Your task to perform on an android device: empty trash in google photos Image 0: 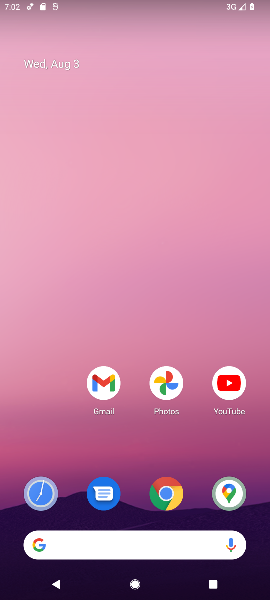
Step 0: drag from (138, 514) to (147, 137)
Your task to perform on an android device: empty trash in google photos Image 1: 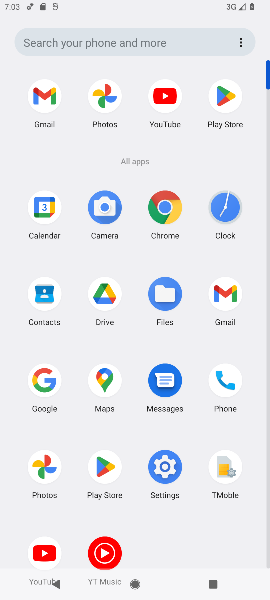
Step 1: click (99, 98)
Your task to perform on an android device: empty trash in google photos Image 2: 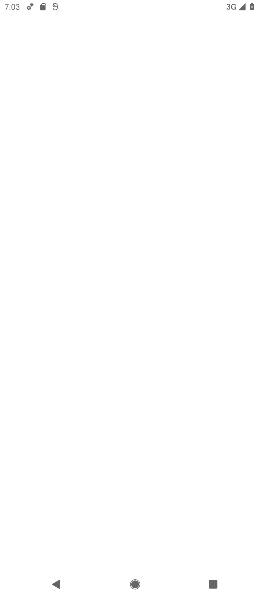
Step 2: task complete